Your task to perform on an android device: Go to CNN.com Image 0: 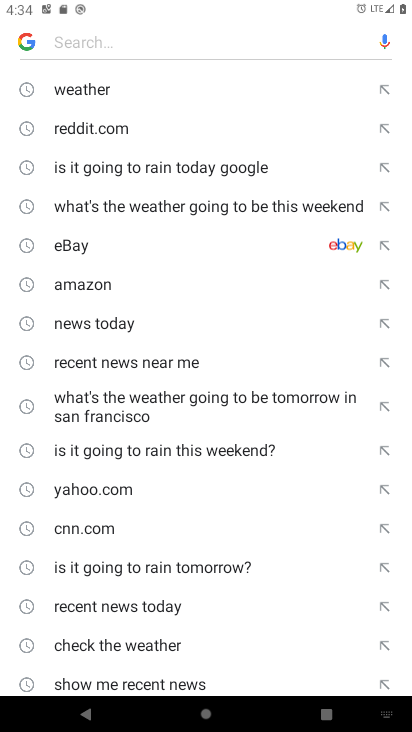
Step 0: press home button
Your task to perform on an android device: Go to CNN.com Image 1: 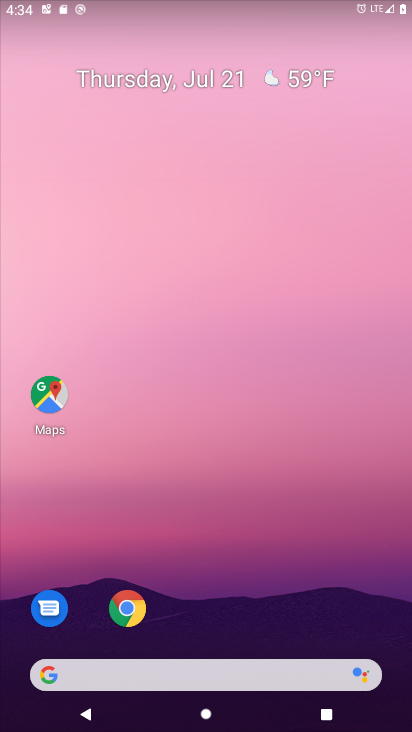
Step 1: drag from (188, 675) to (283, 2)
Your task to perform on an android device: Go to CNN.com Image 2: 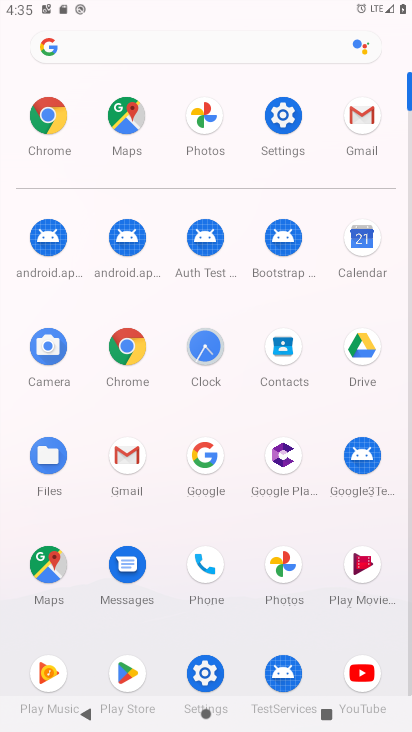
Step 2: click (119, 346)
Your task to perform on an android device: Go to CNN.com Image 3: 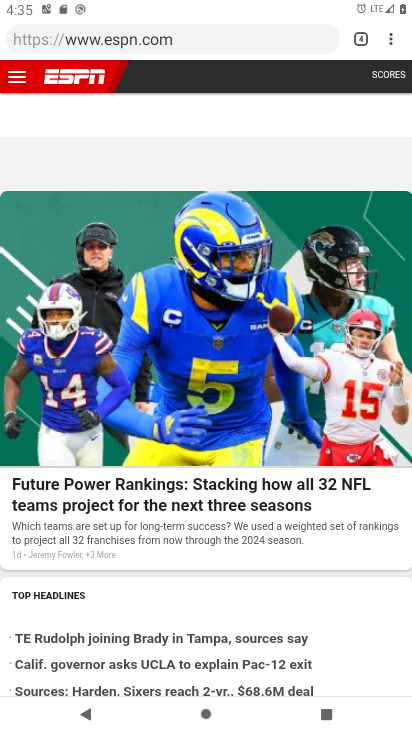
Step 3: click (280, 30)
Your task to perform on an android device: Go to CNN.com Image 4: 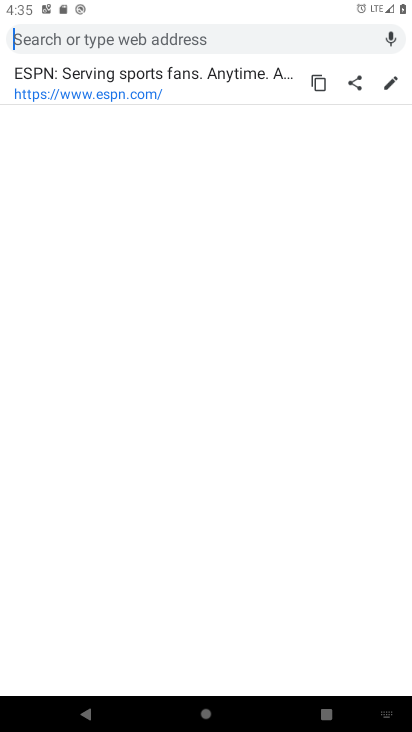
Step 4: type "cnn.com"
Your task to perform on an android device: Go to CNN.com Image 5: 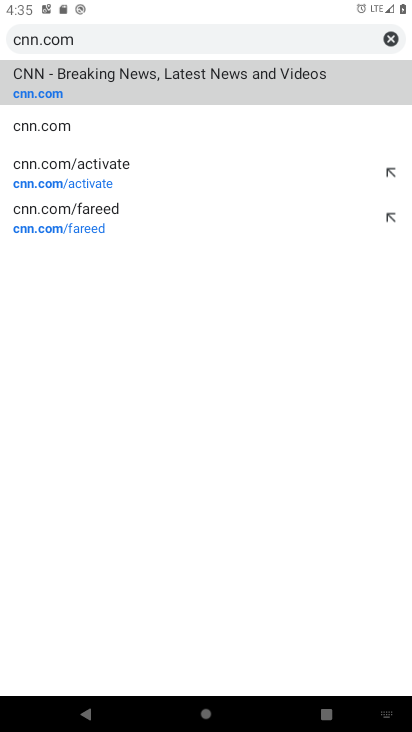
Step 5: click (193, 79)
Your task to perform on an android device: Go to CNN.com Image 6: 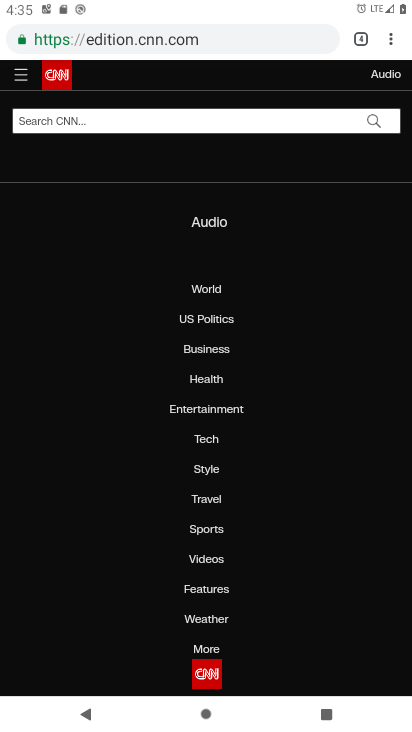
Step 6: task complete